Your task to perform on an android device: open device folders in google photos Image 0: 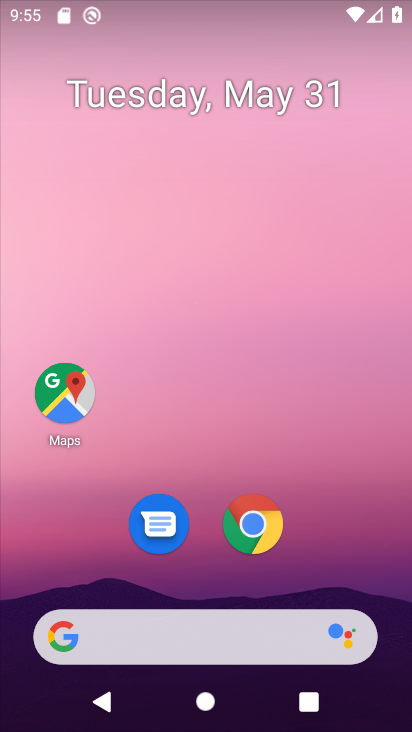
Step 0: drag from (279, 462) to (289, 22)
Your task to perform on an android device: open device folders in google photos Image 1: 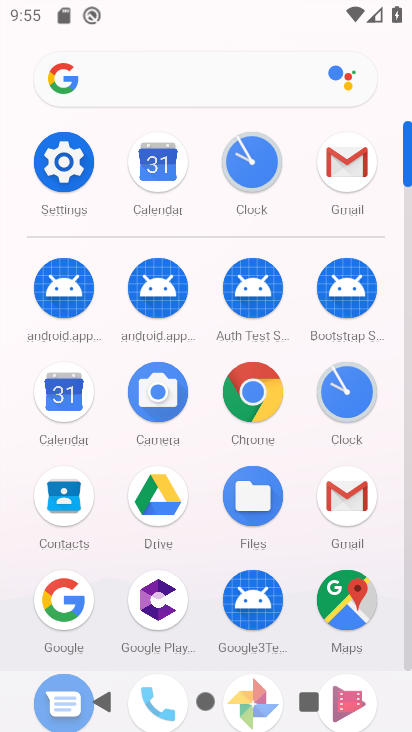
Step 1: drag from (294, 552) to (295, 451)
Your task to perform on an android device: open device folders in google photos Image 2: 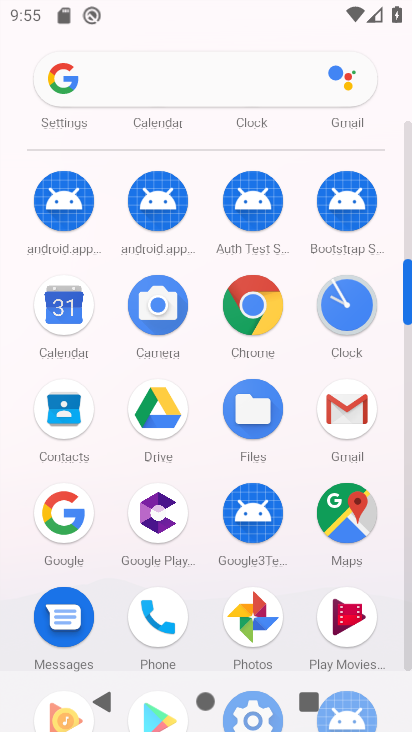
Step 2: click (265, 605)
Your task to perform on an android device: open device folders in google photos Image 3: 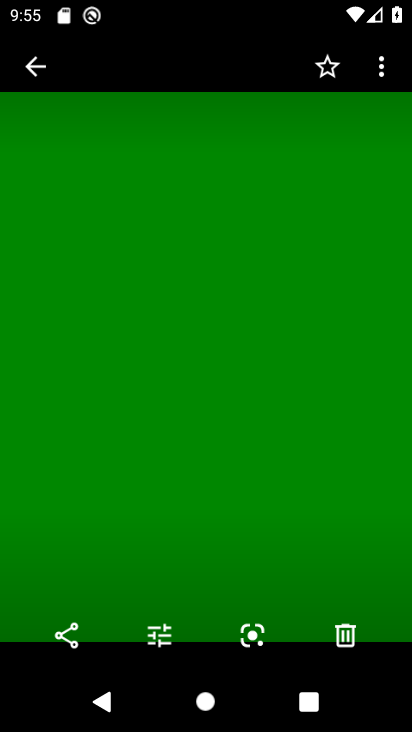
Step 3: click (41, 68)
Your task to perform on an android device: open device folders in google photos Image 4: 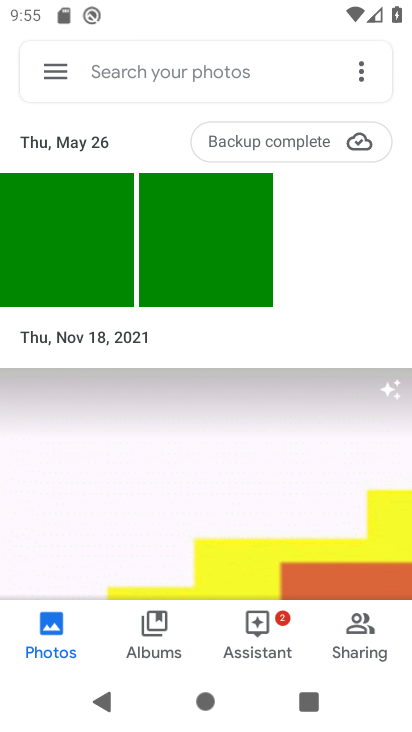
Step 4: click (44, 66)
Your task to perform on an android device: open device folders in google photos Image 5: 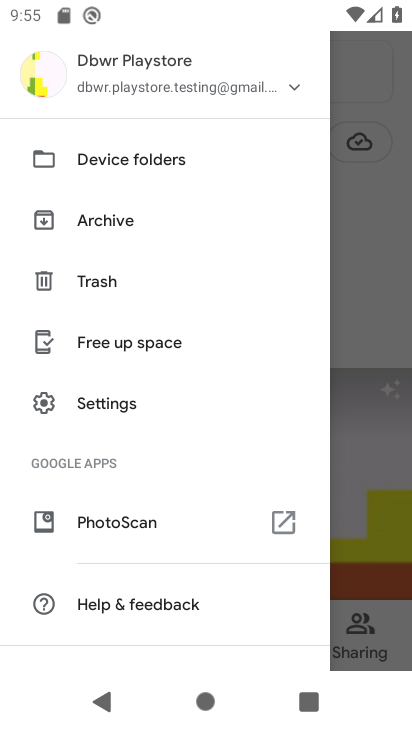
Step 5: click (101, 161)
Your task to perform on an android device: open device folders in google photos Image 6: 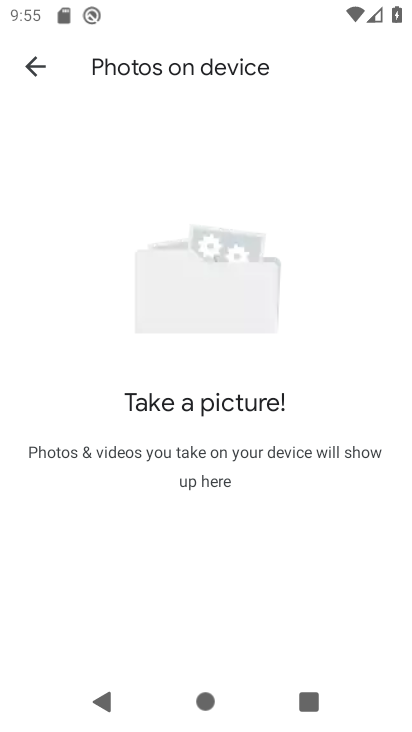
Step 6: task complete